Your task to perform on an android device: change the clock display to show seconds Image 0: 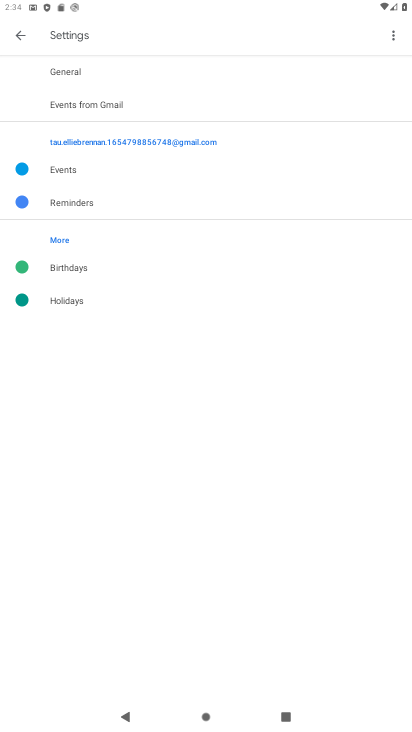
Step 0: press home button
Your task to perform on an android device: change the clock display to show seconds Image 1: 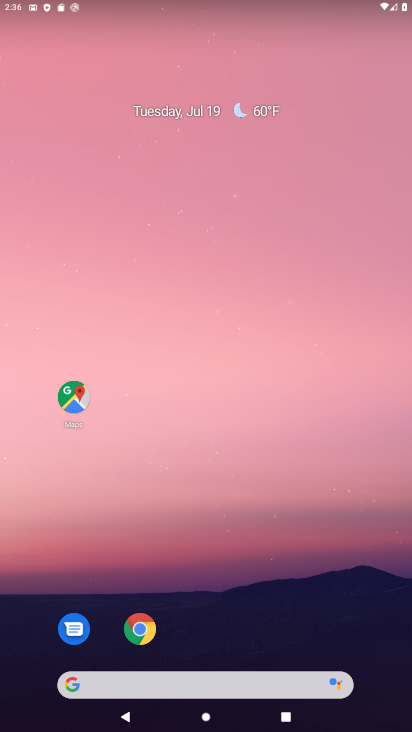
Step 1: drag from (298, 571) to (411, 69)
Your task to perform on an android device: change the clock display to show seconds Image 2: 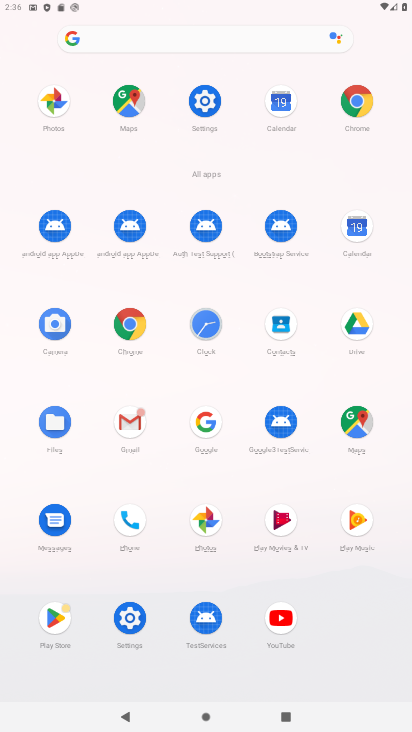
Step 2: click (212, 323)
Your task to perform on an android device: change the clock display to show seconds Image 3: 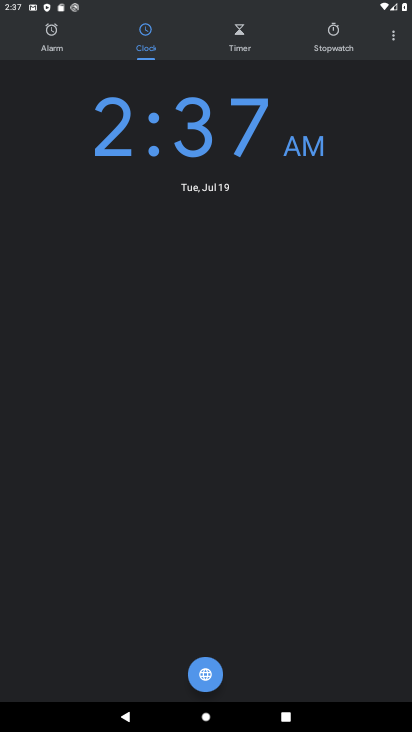
Step 3: click (392, 39)
Your task to perform on an android device: change the clock display to show seconds Image 4: 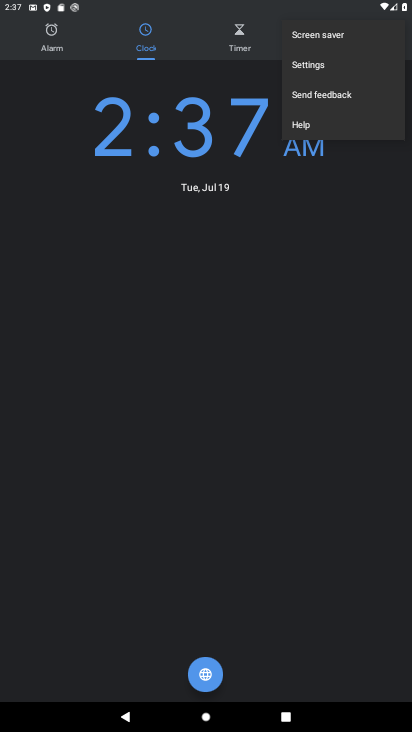
Step 4: click (325, 64)
Your task to perform on an android device: change the clock display to show seconds Image 5: 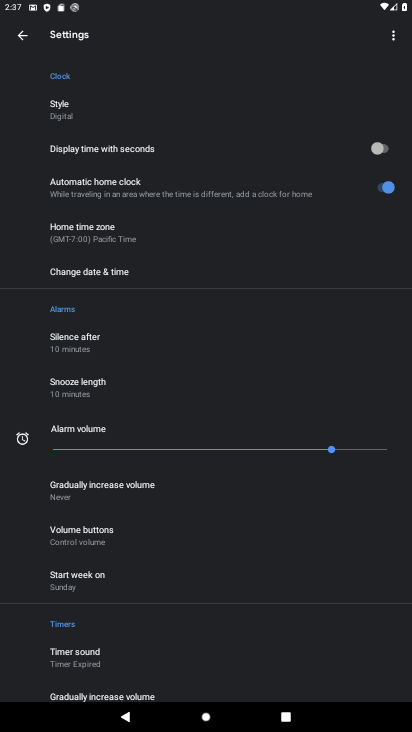
Step 5: click (80, 104)
Your task to perform on an android device: change the clock display to show seconds Image 6: 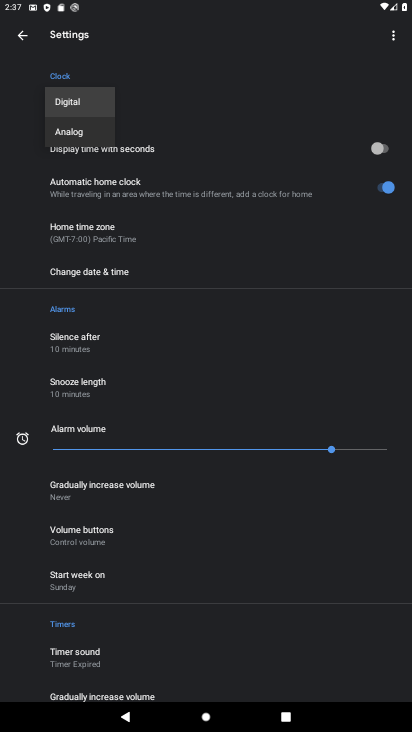
Step 6: click (75, 98)
Your task to perform on an android device: change the clock display to show seconds Image 7: 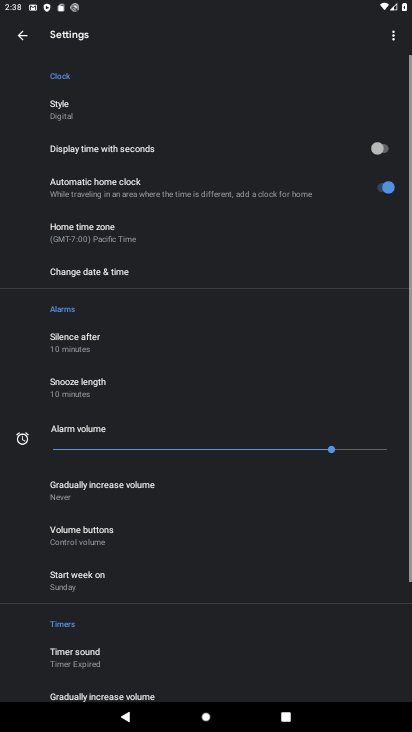
Step 7: click (79, 114)
Your task to perform on an android device: change the clock display to show seconds Image 8: 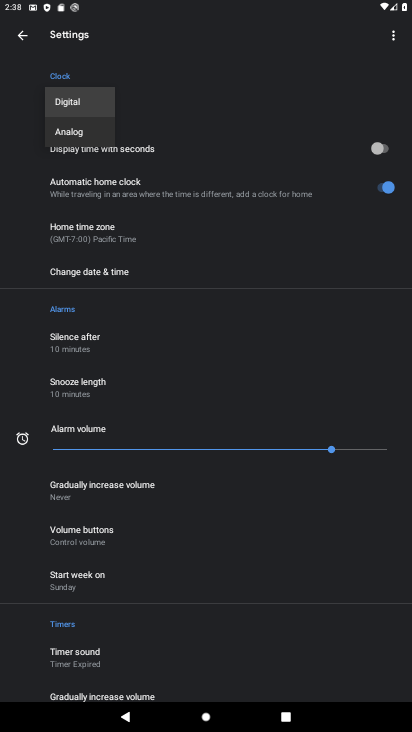
Step 8: click (73, 133)
Your task to perform on an android device: change the clock display to show seconds Image 9: 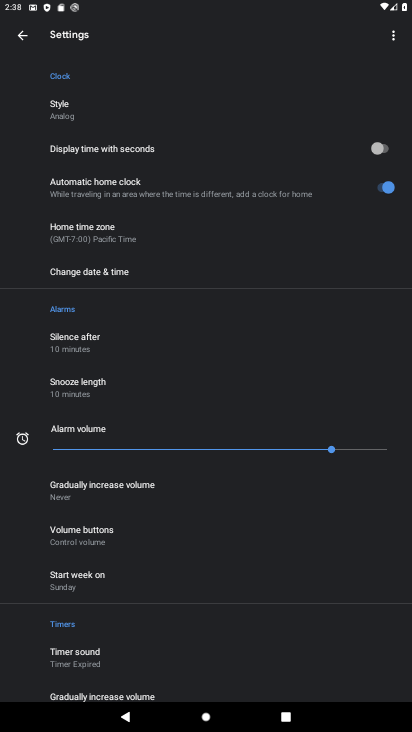
Step 9: task complete